Your task to perform on an android device: toggle show notifications on the lock screen Image 0: 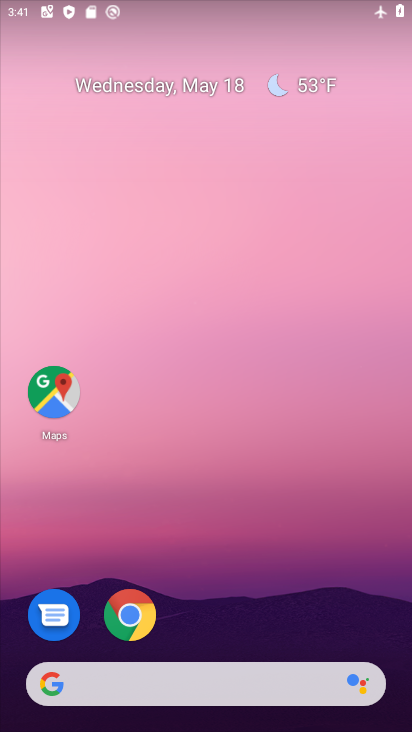
Step 0: drag from (308, 592) to (295, 94)
Your task to perform on an android device: toggle show notifications on the lock screen Image 1: 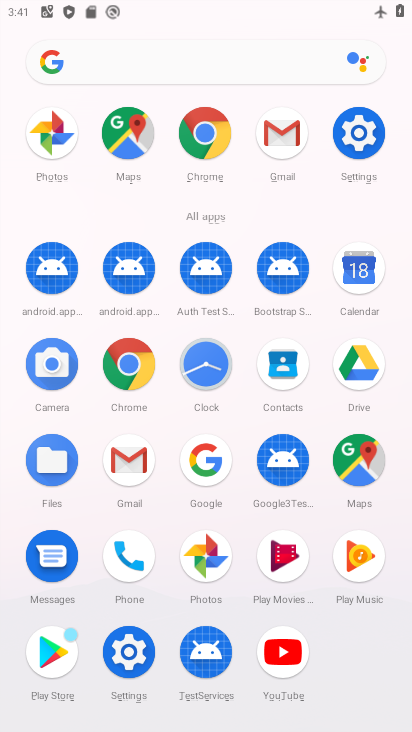
Step 1: click (356, 143)
Your task to perform on an android device: toggle show notifications on the lock screen Image 2: 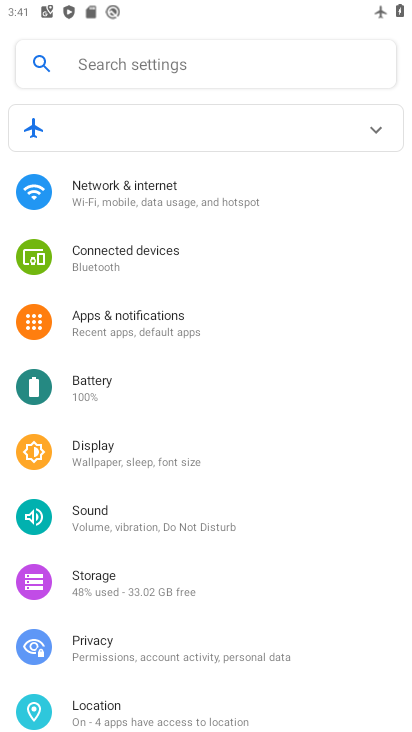
Step 2: click (155, 315)
Your task to perform on an android device: toggle show notifications on the lock screen Image 3: 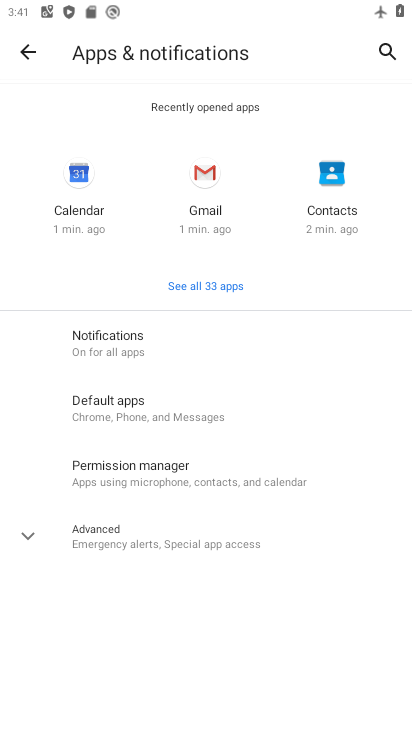
Step 3: click (168, 335)
Your task to perform on an android device: toggle show notifications on the lock screen Image 4: 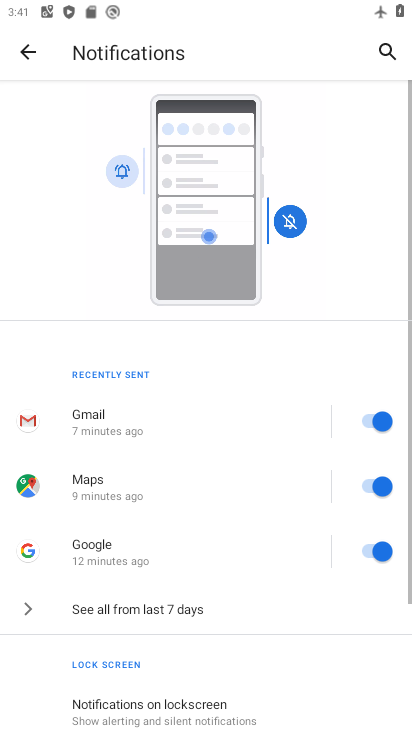
Step 4: drag from (138, 673) to (260, 233)
Your task to perform on an android device: toggle show notifications on the lock screen Image 5: 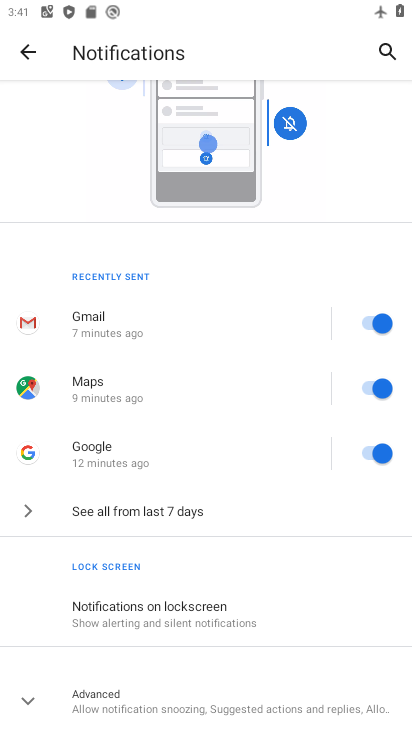
Step 5: click (177, 602)
Your task to perform on an android device: toggle show notifications on the lock screen Image 6: 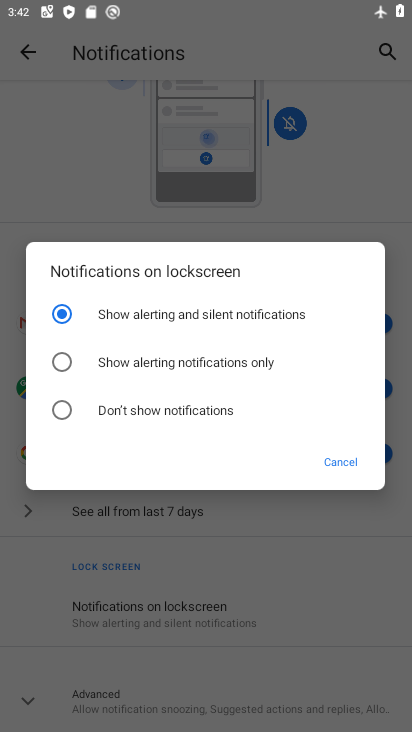
Step 6: click (167, 362)
Your task to perform on an android device: toggle show notifications on the lock screen Image 7: 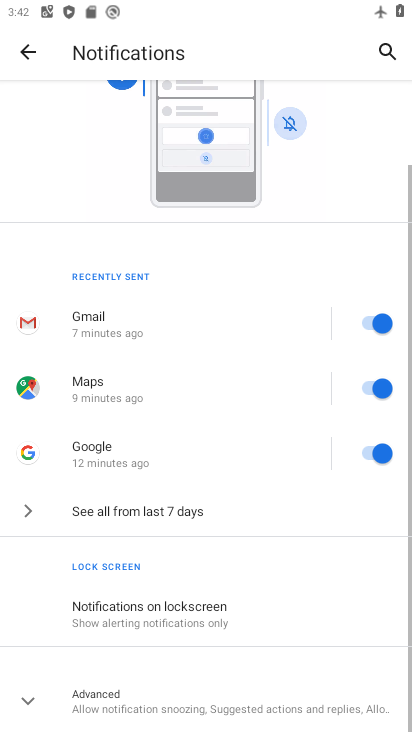
Step 7: task complete